Your task to perform on an android device: turn on notifications settings in the gmail app Image 0: 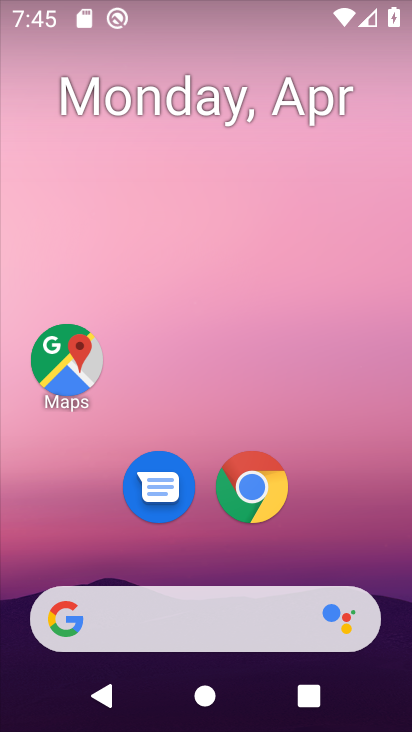
Step 0: click (231, 114)
Your task to perform on an android device: turn on notifications settings in the gmail app Image 1: 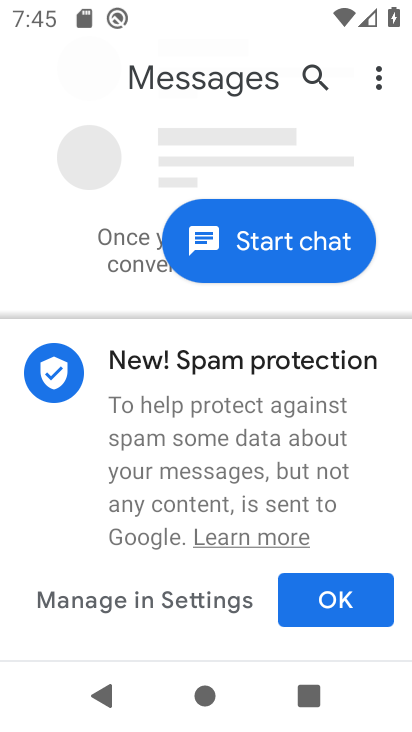
Step 1: press home button
Your task to perform on an android device: turn on notifications settings in the gmail app Image 2: 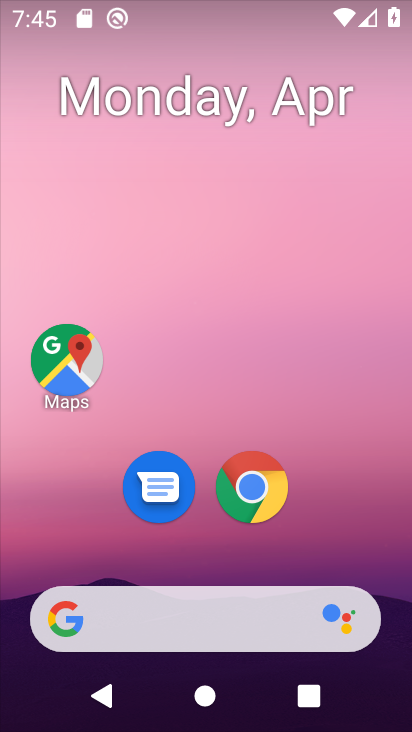
Step 2: drag from (206, 550) to (246, 94)
Your task to perform on an android device: turn on notifications settings in the gmail app Image 3: 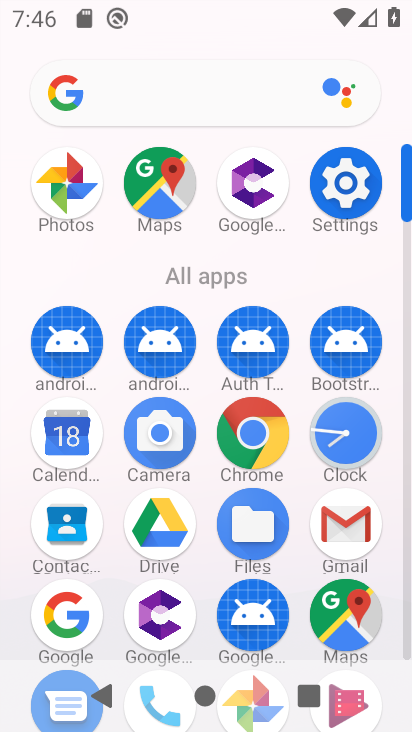
Step 3: click (347, 517)
Your task to perform on an android device: turn on notifications settings in the gmail app Image 4: 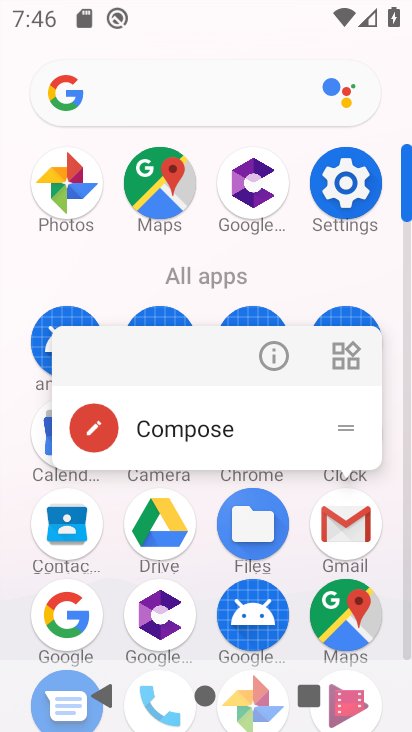
Step 4: click (347, 517)
Your task to perform on an android device: turn on notifications settings in the gmail app Image 5: 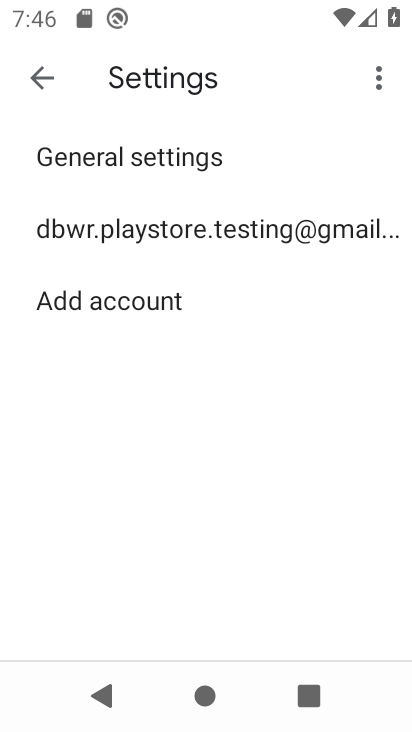
Step 5: click (141, 158)
Your task to perform on an android device: turn on notifications settings in the gmail app Image 6: 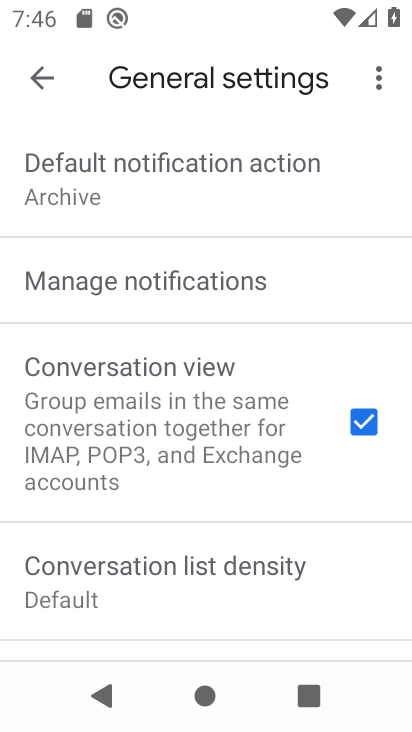
Step 6: click (176, 277)
Your task to perform on an android device: turn on notifications settings in the gmail app Image 7: 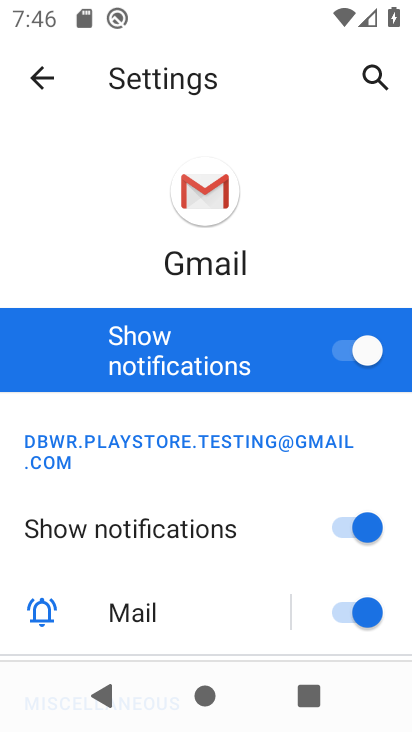
Step 7: task complete